Your task to perform on an android device: Open Youtube and go to "Your channel" Image 0: 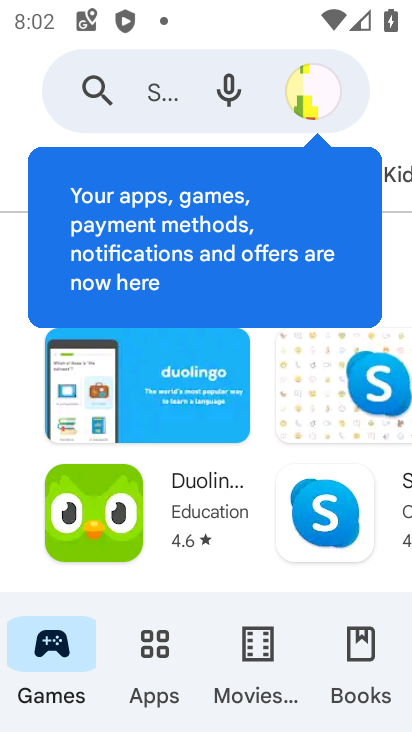
Step 0: press home button
Your task to perform on an android device: Open Youtube and go to "Your channel" Image 1: 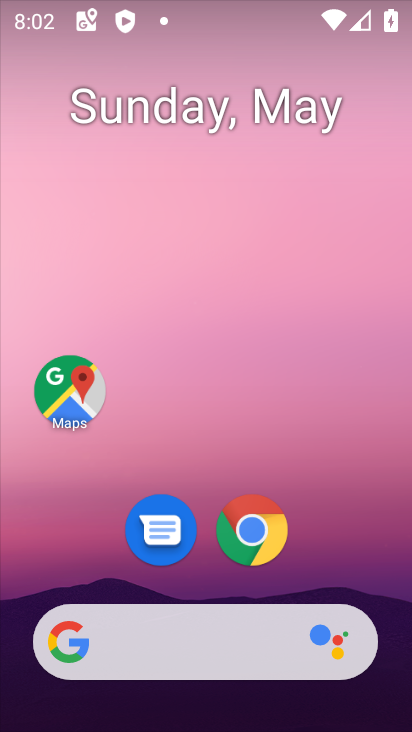
Step 1: drag from (366, 592) to (374, 12)
Your task to perform on an android device: Open Youtube and go to "Your channel" Image 2: 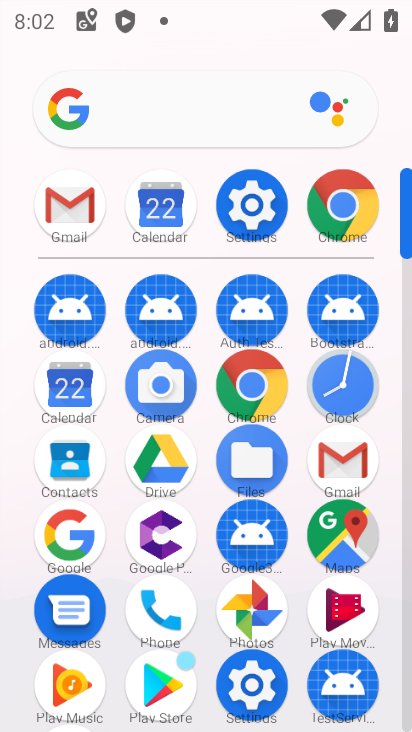
Step 2: click (405, 635)
Your task to perform on an android device: Open Youtube and go to "Your channel" Image 3: 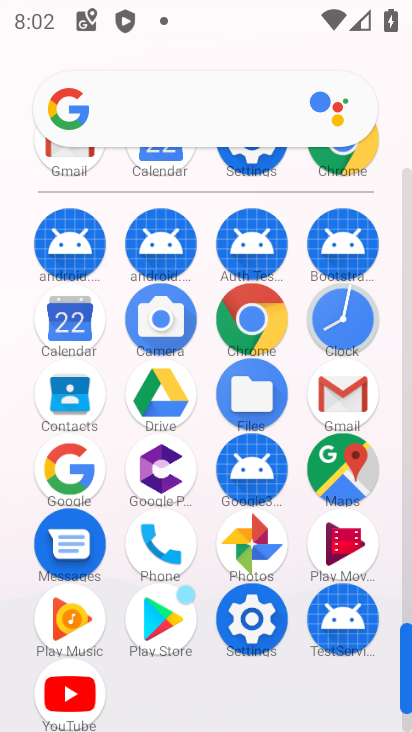
Step 3: click (67, 687)
Your task to perform on an android device: Open Youtube and go to "Your channel" Image 4: 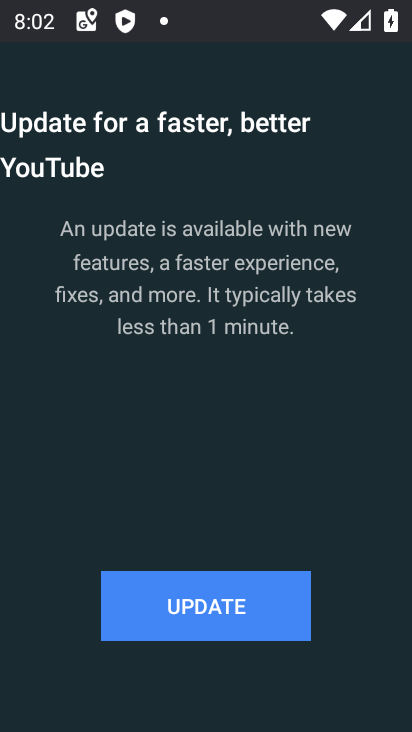
Step 4: click (214, 628)
Your task to perform on an android device: Open Youtube and go to "Your channel" Image 5: 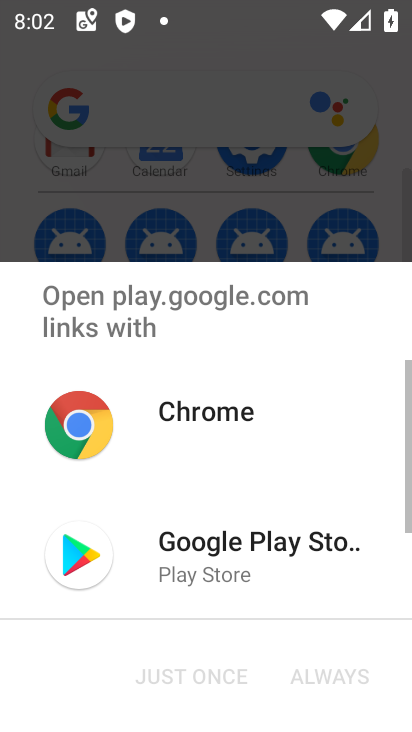
Step 5: click (212, 564)
Your task to perform on an android device: Open Youtube and go to "Your channel" Image 6: 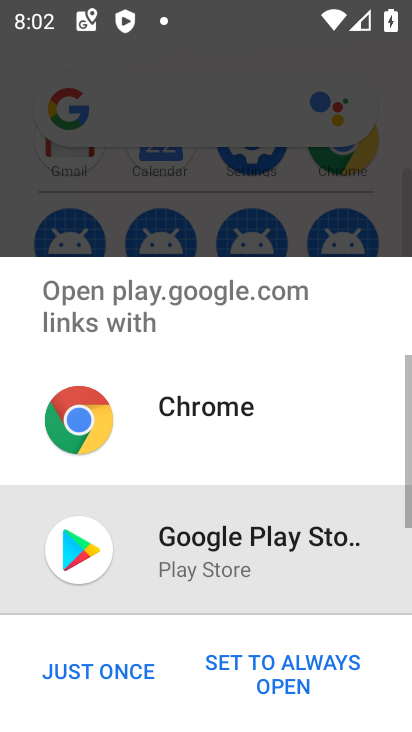
Step 6: click (106, 675)
Your task to perform on an android device: Open Youtube and go to "Your channel" Image 7: 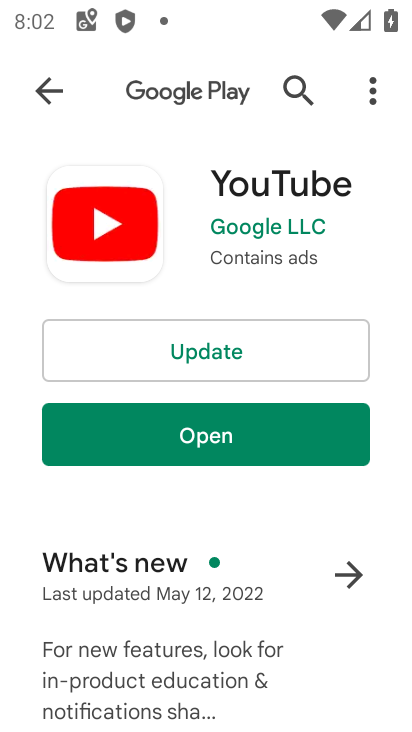
Step 7: click (223, 346)
Your task to perform on an android device: Open Youtube and go to "Your channel" Image 8: 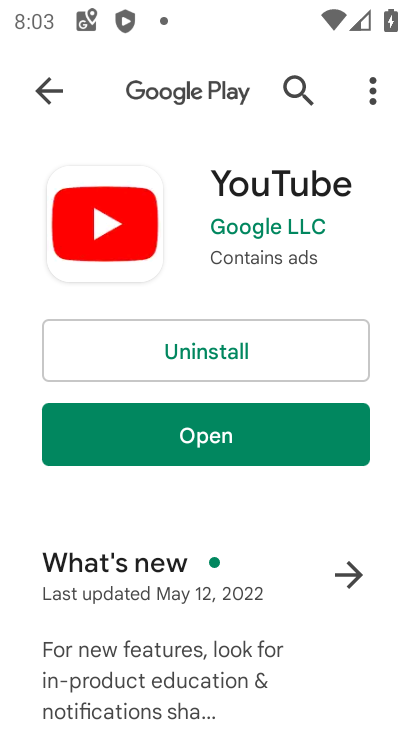
Step 8: click (236, 437)
Your task to perform on an android device: Open Youtube and go to "Your channel" Image 9: 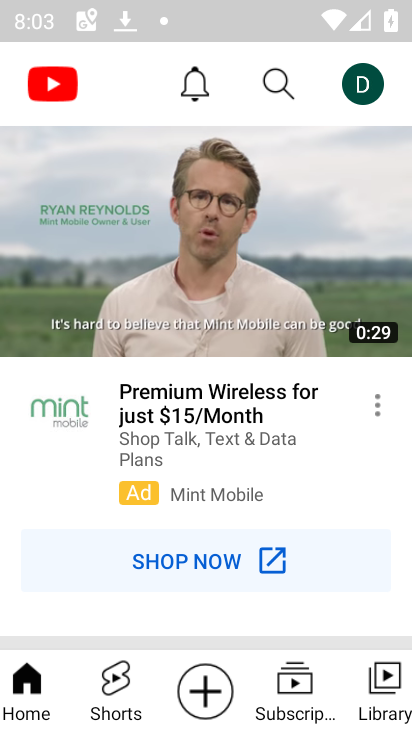
Step 9: click (372, 86)
Your task to perform on an android device: Open Youtube and go to "Your channel" Image 10: 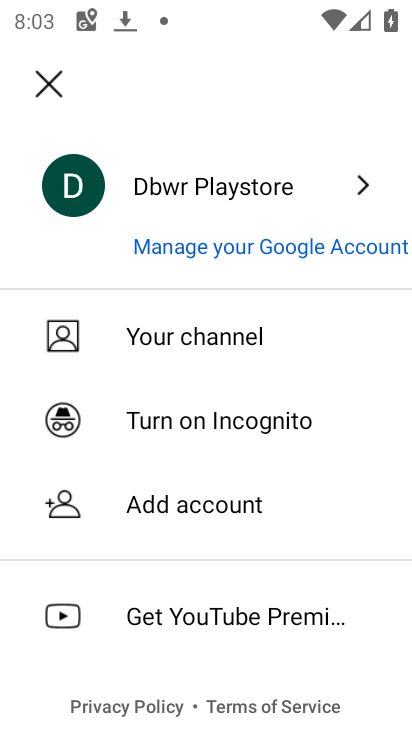
Step 10: click (142, 344)
Your task to perform on an android device: Open Youtube and go to "Your channel" Image 11: 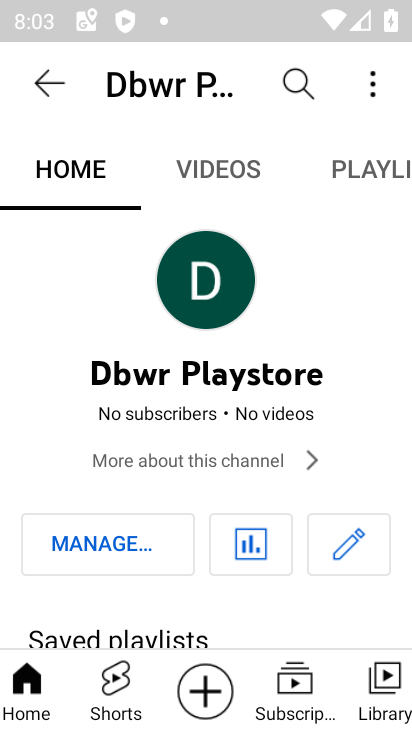
Step 11: task complete